Your task to perform on an android device: turn off picture-in-picture Image 0: 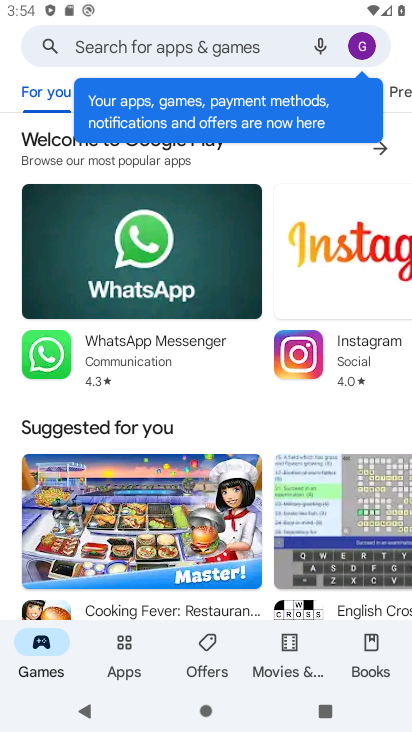
Step 0: press home button
Your task to perform on an android device: turn off picture-in-picture Image 1: 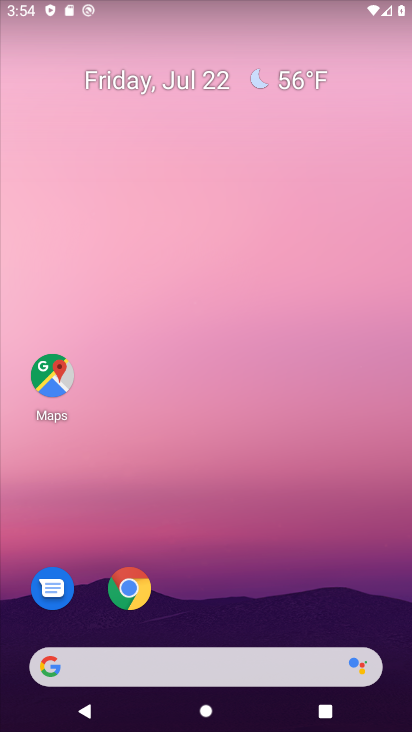
Step 1: click (127, 570)
Your task to perform on an android device: turn off picture-in-picture Image 2: 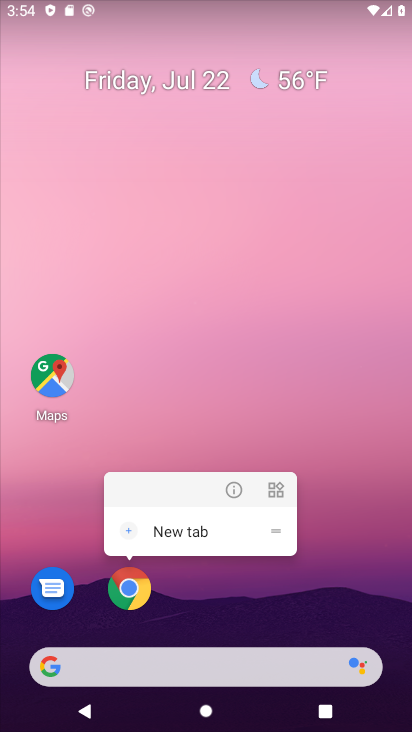
Step 2: click (229, 494)
Your task to perform on an android device: turn off picture-in-picture Image 3: 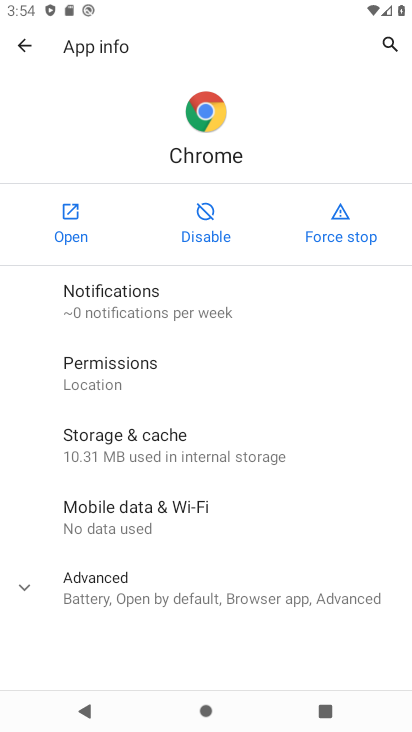
Step 3: click (174, 613)
Your task to perform on an android device: turn off picture-in-picture Image 4: 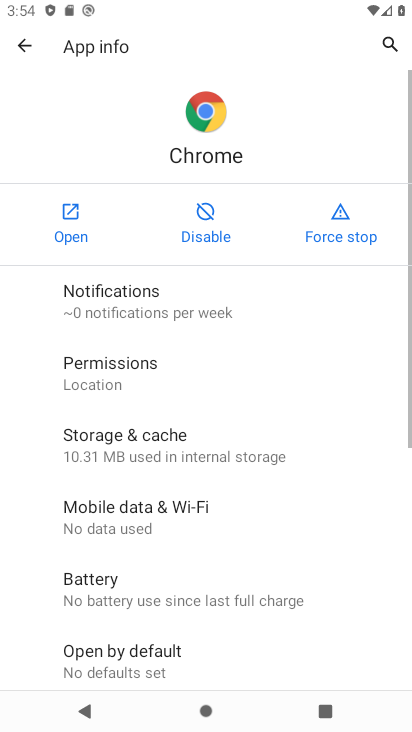
Step 4: drag from (174, 612) to (198, 372)
Your task to perform on an android device: turn off picture-in-picture Image 5: 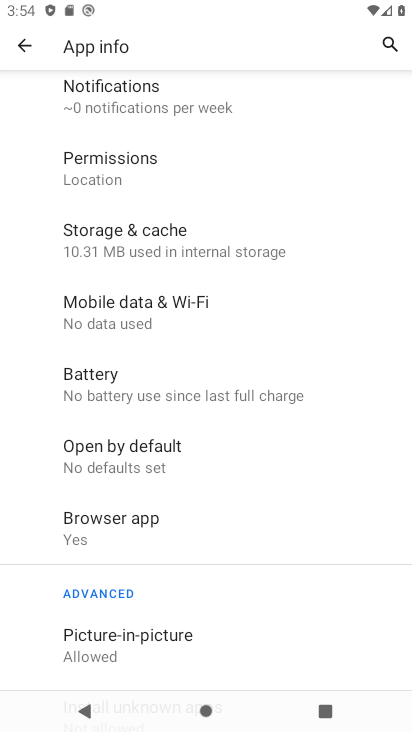
Step 5: drag from (141, 620) to (185, 426)
Your task to perform on an android device: turn off picture-in-picture Image 6: 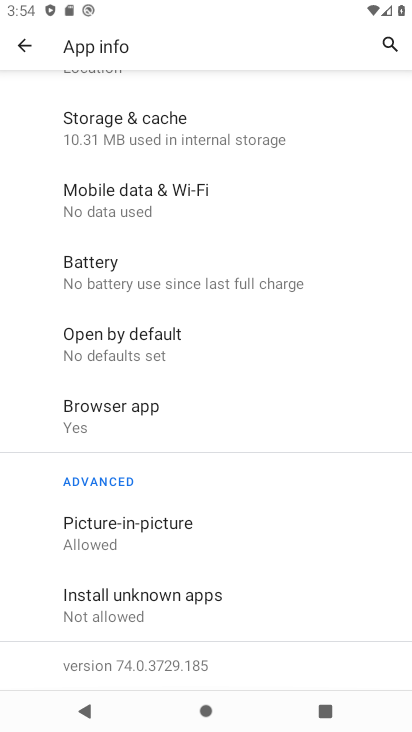
Step 6: click (127, 537)
Your task to perform on an android device: turn off picture-in-picture Image 7: 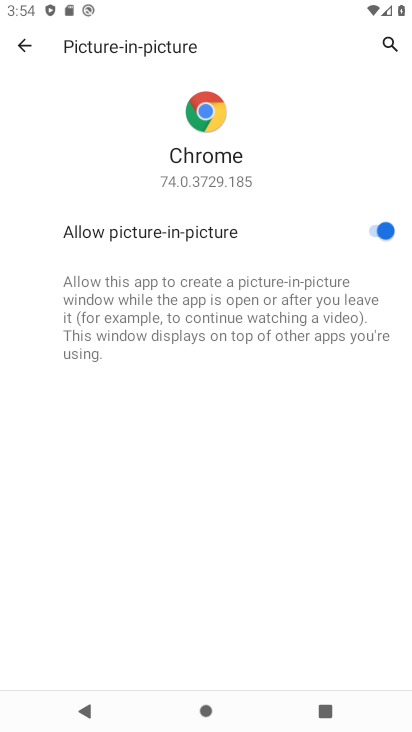
Step 7: click (377, 239)
Your task to perform on an android device: turn off picture-in-picture Image 8: 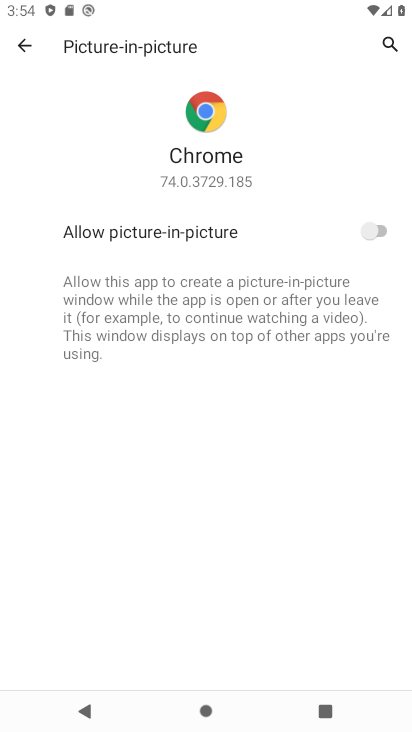
Step 8: task complete